Your task to perform on an android device: find which apps use the phone's location Image 0: 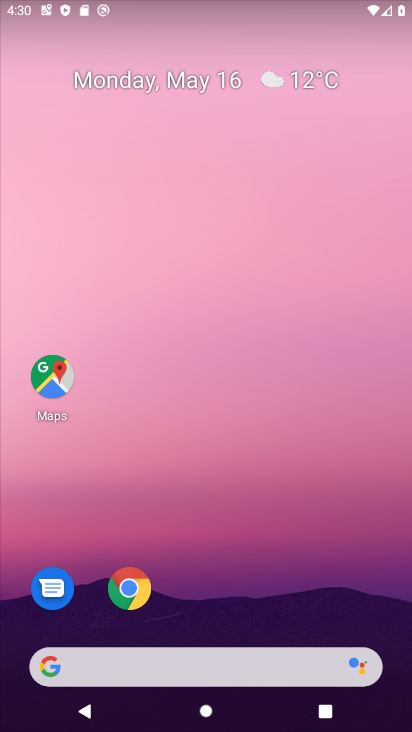
Step 0: drag from (193, 616) to (256, 109)
Your task to perform on an android device: find which apps use the phone's location Image 1: 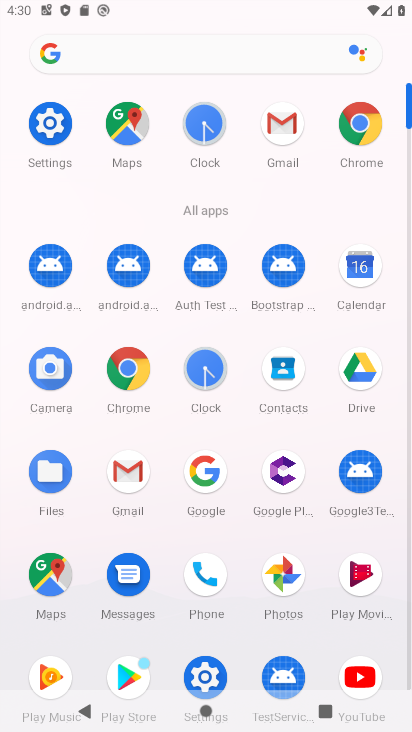
Step 1: click (44, 139)
Your task to perform on an android device: find which apps use the phone's location Image 2: 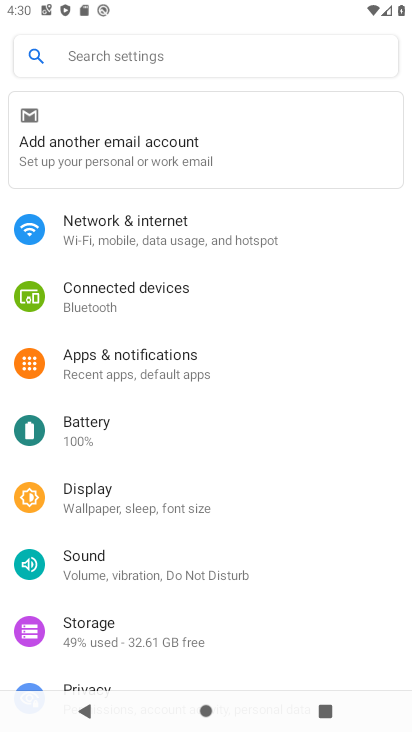
Step 2: drag from (154, 606) to (219, 168)
Your task to perform on an android device: find which apps use the phone's location Image 3: 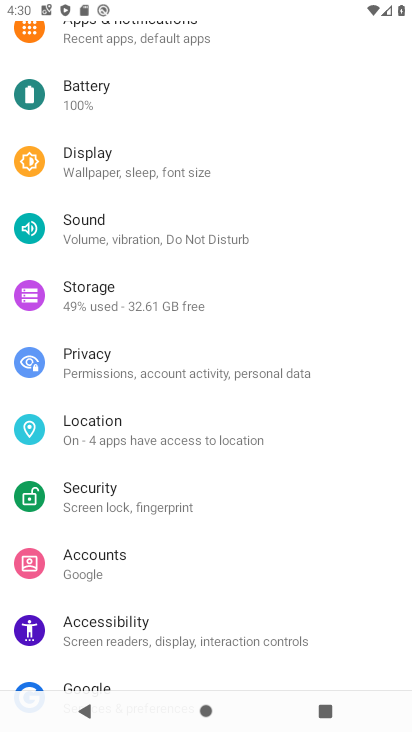
Step 3: click (134, 435)
Your task to perform on an android device: find which apps use the phone's location Image 4: 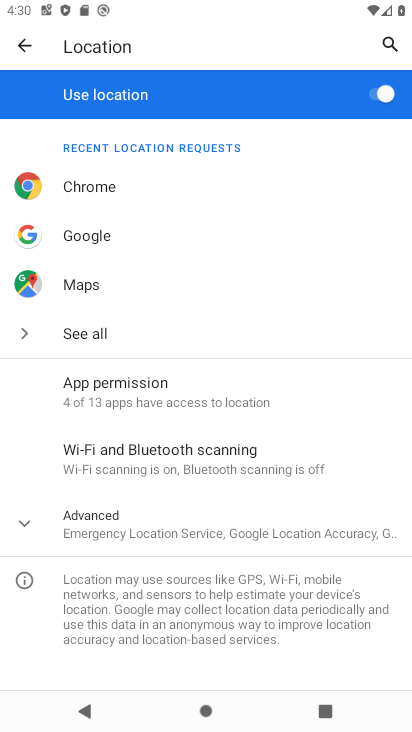
Step 4: click (135, 514)
Your task to perform on an android device: find which apps use the phone's location Image 5: 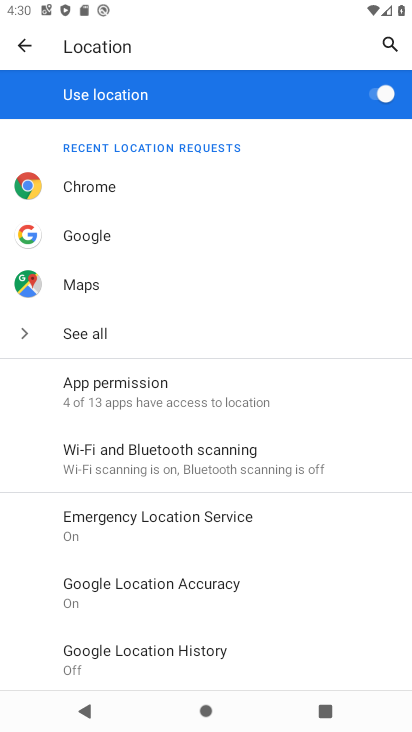
Step 5: click (94, 387)
Your task to perform on an android device: find which apps use the phone's location Image 6: 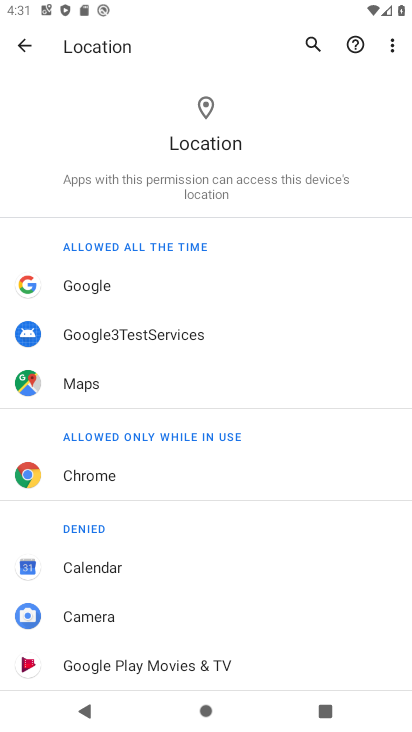
Step 6: task complete